Your task to perform on an android device: What's the weather? Image 0: 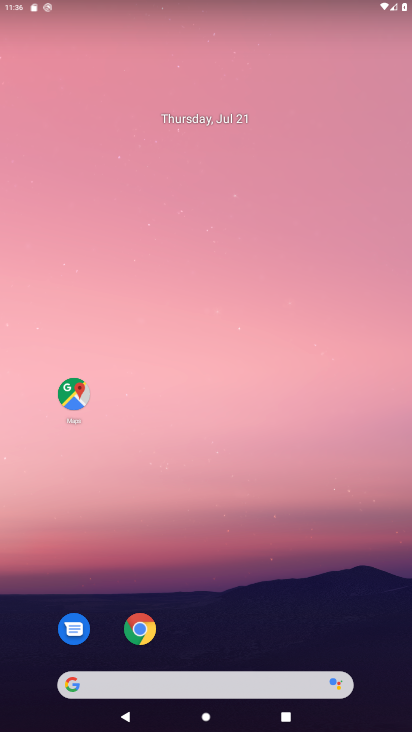
Step 0: click (190, 684)
Your task to perform on an android device: What's the weather? Image 1: 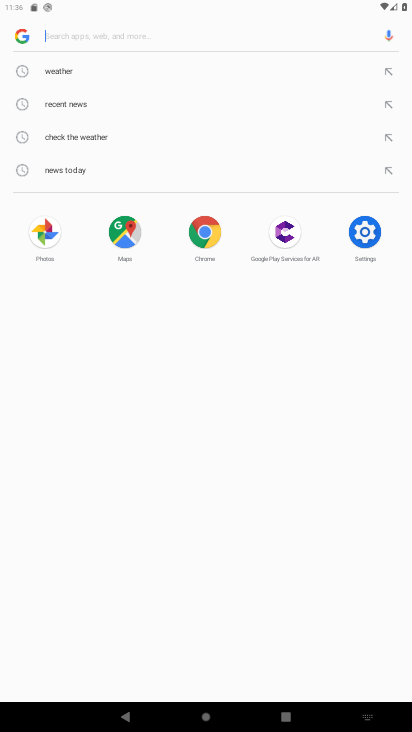
Step 1: click (68, 68)
Your task to perform on an android device: What's the weather? Image 2: 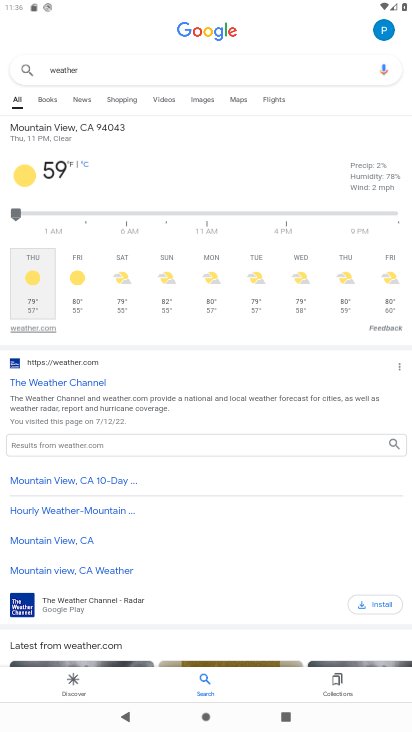
Step 2: task complete